Your task to perform on an android device: Open Android settings Image 0: 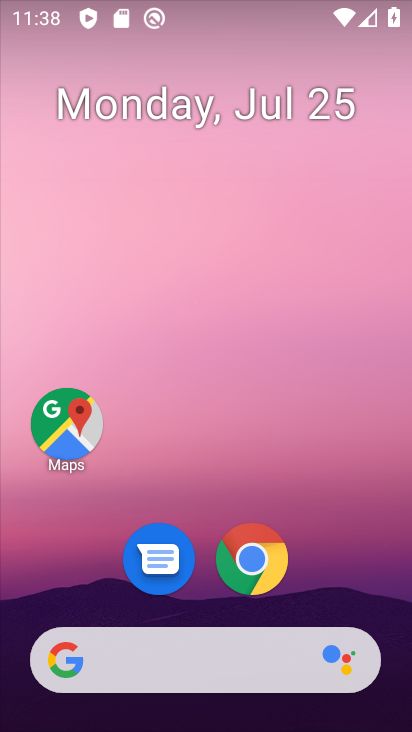
Step 0: drag from (110, 481) to (197, 12)
Your task to perform on an android device: Open Android settings Image 1: 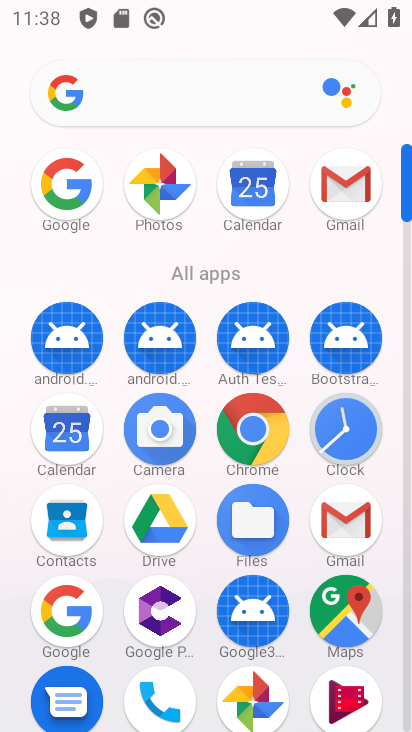
Step 1: drag from (182, 544) to (242, 101)
Your task to perform on an android device: Open Android settings Image 2: 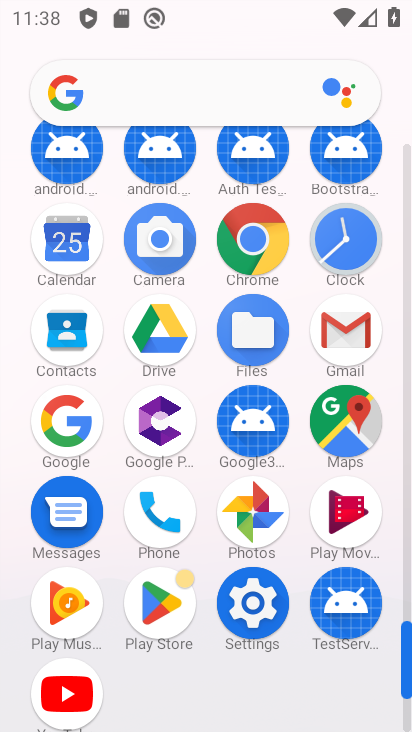
Step 2: click (258, 593)
Your task to perform on an android device: Open Android settings Image 3: 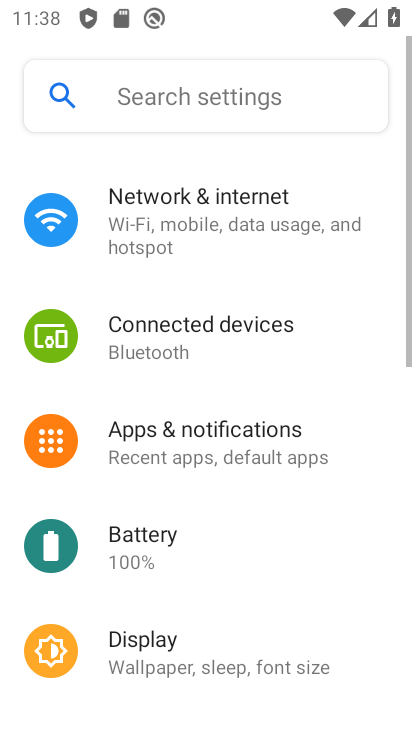
Step 3: drag from (189, 617) to (296, 49)
Your task to perform on an android device: Open Android settings Image 4: 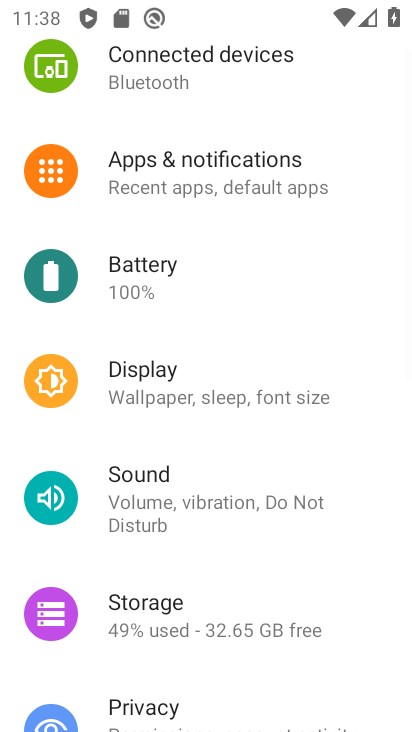
Step 4: drag from (187, 592) to (278, 101)
Your task to perform on an android device: Open Android settings Image 5: 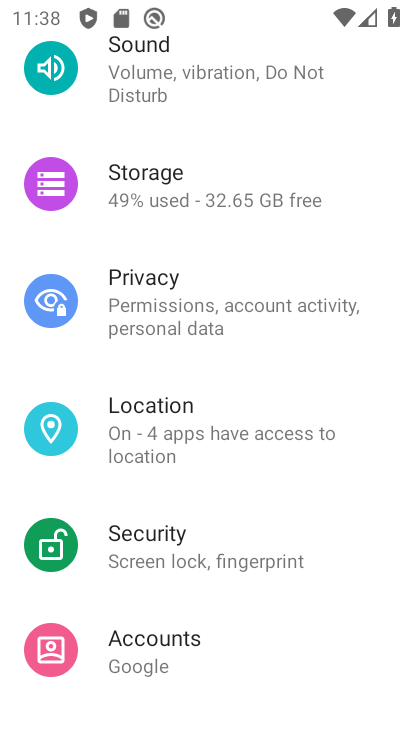
Step 5: drag from (264, 124) to (184, 571)
Your task to perform on an android device: Open Android settings Image 6: 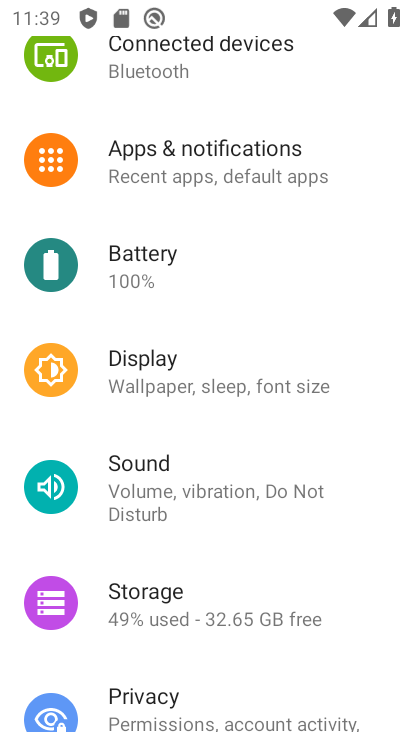
Step 6: drag from (193, 621) to (284, 11)
Your task to perform on an android device: Open Android settings Image 7: 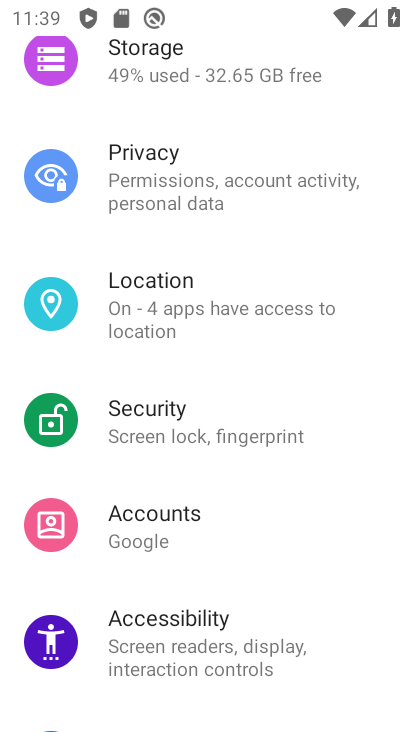
Step 7: click (164, 664)
Your task to perform on an android device: Open Android settings Image 8: 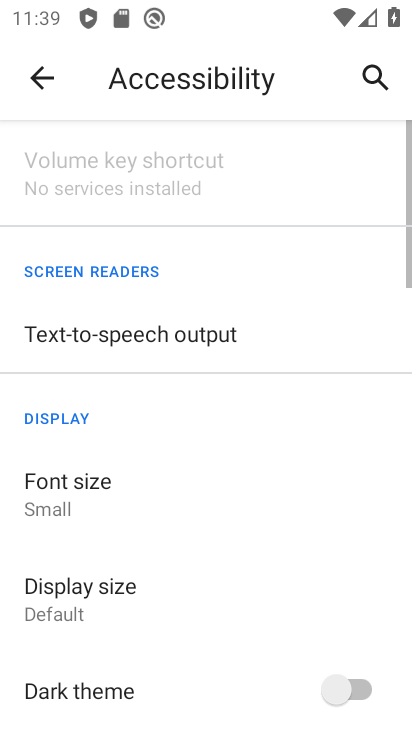
Step 8: drag from (161, 648) to (265, 105)
Your task to perform on an android device: Open Android settings Image 9: 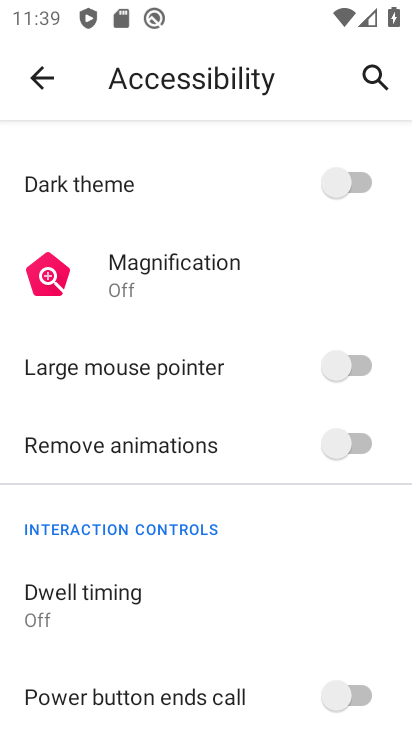
Step 9: click (54, 74)
Your task to perform on an android device: Open Android settings Image 10: 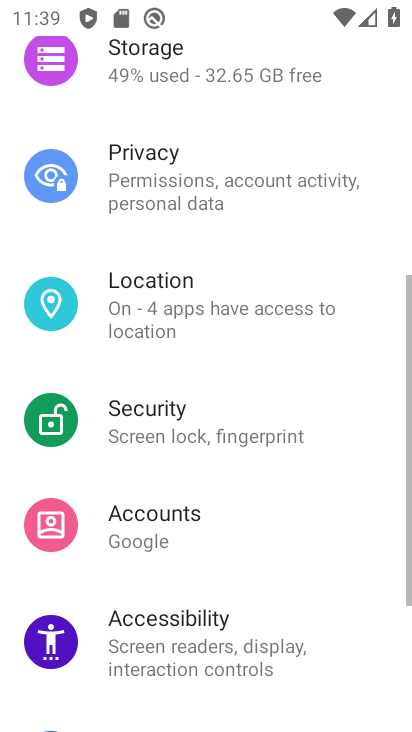
Step 10: drag from (172, 627) to (294, 13)
Your task to perform on an android device: Open Android settings Image 11: 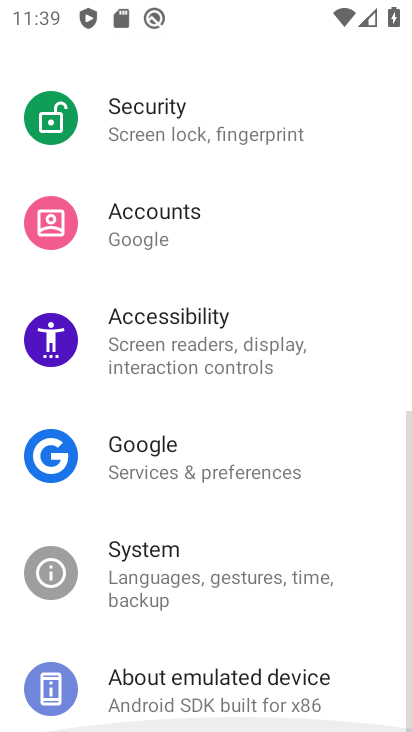
Step 11: drag from (165, 599) to (246, 32)
Your task to perform on an android device: Open Android settings Image 12: 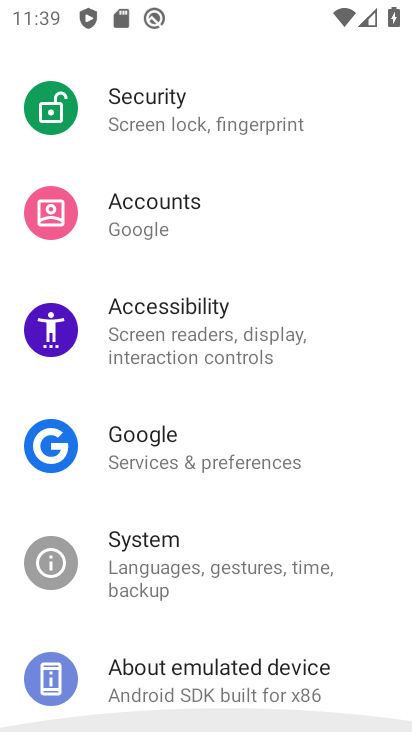
Step 12: drag from (154, 638) to (254, 80)
Your task to perform on an android device: Open Android settings Image 13: 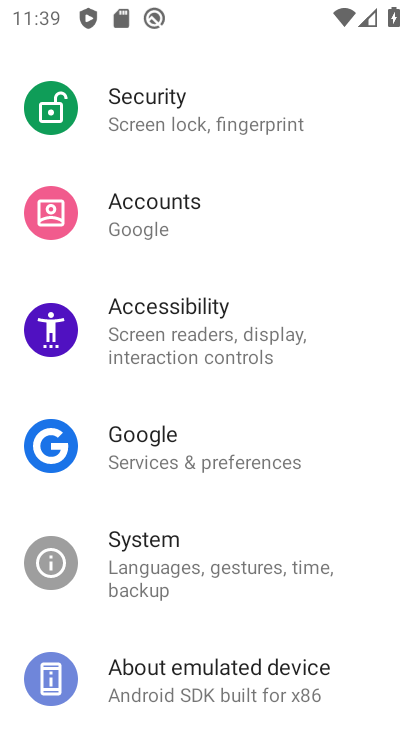
Step 13: click (185, 683)
Your task to perform on an android device: Open Android settings Image 14: 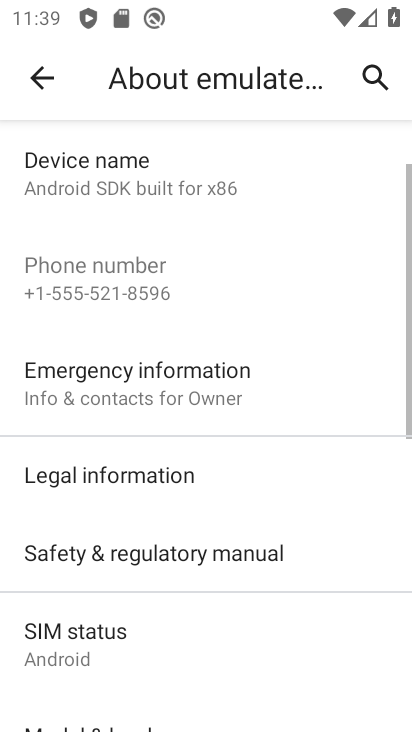
Step 14: task complete